Your task to perform on an android device: Open Youtube and go to "Your channel" Image 0: 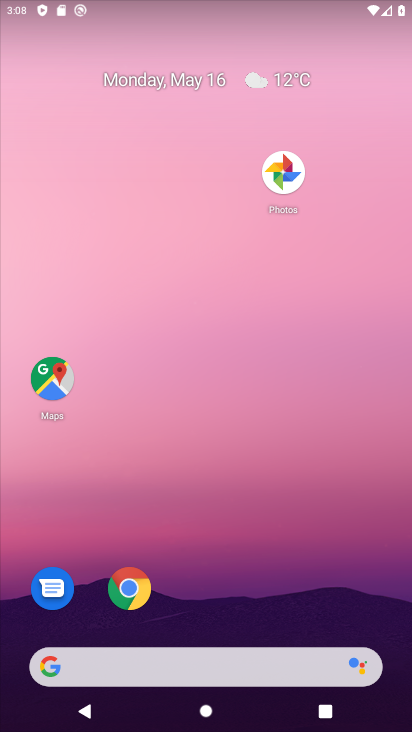
Step 0: drag from (218, 627) to (187, 100)
Your task to perform on an android device: Open Youtube and go to "Your channel" Image 1: 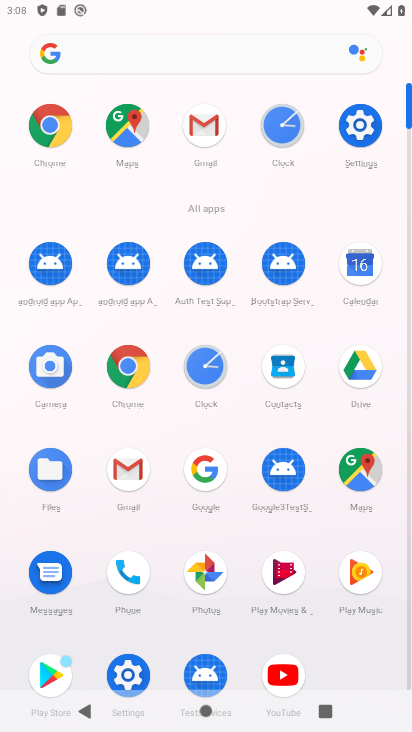
Step 1: click (291, 668)
Your task to perform on an android device: Open Youtube and go to "Your channel" Image 2: 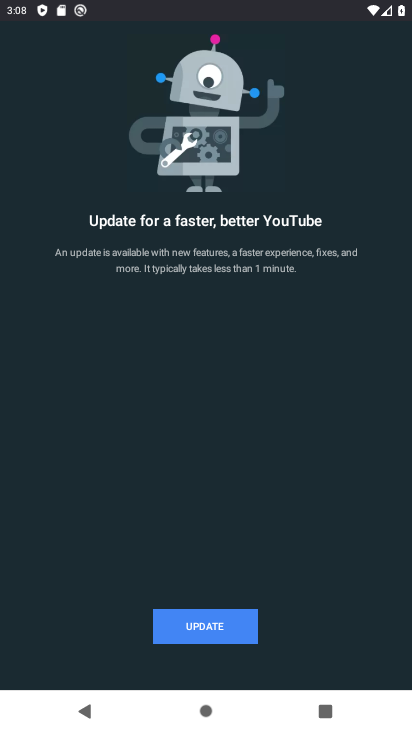
Step 2: click (188, 614)
Your task to perform on an android device: Open Youtube and go to "Your channel" Image 3: 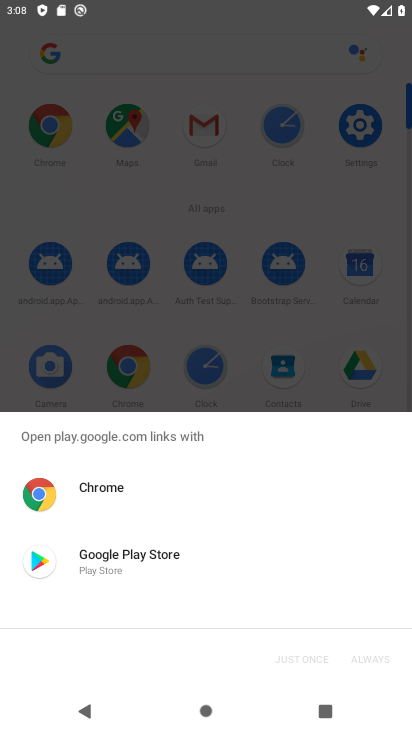
Step 3: click (92, 551)
Your task to perform on an android device: Open Youtube and go to "Your channel" Image 4: 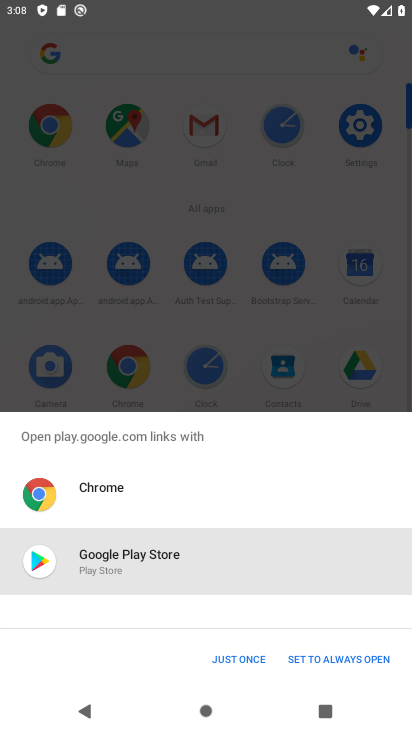
Step 4: click (248, 657)
Your task to perform on an android device: Open Youtube and go to "Your channel" Image 5: 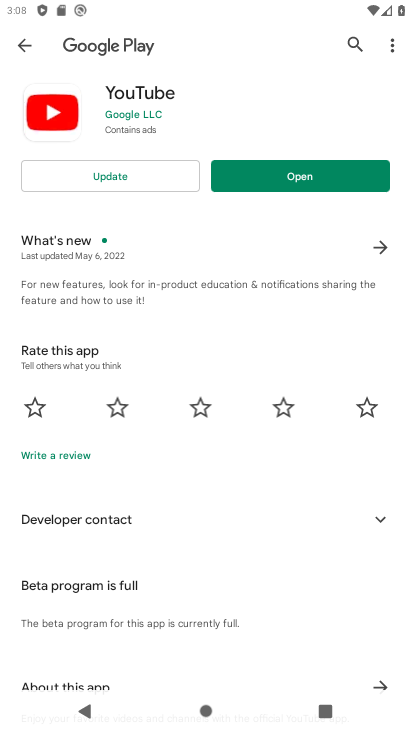
Step 5: click (274, 183)
Your task to perform on an android device: Open Youtube and go to "Your channel" Image 6: 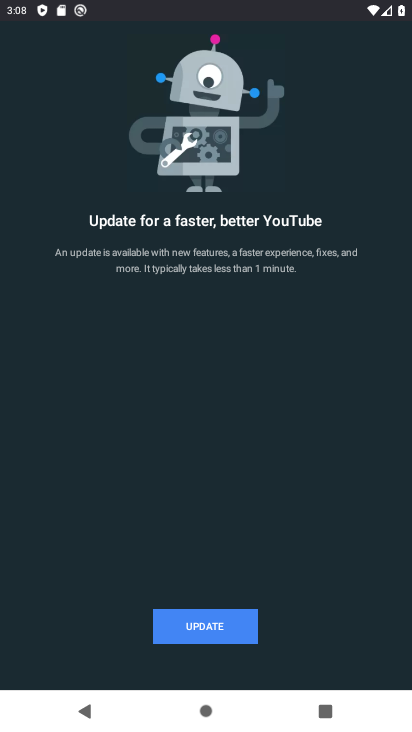
Step 6: click (229, 636)
Your task to perform on an android device: Open Youtube and go to "Your channel" Image 7: 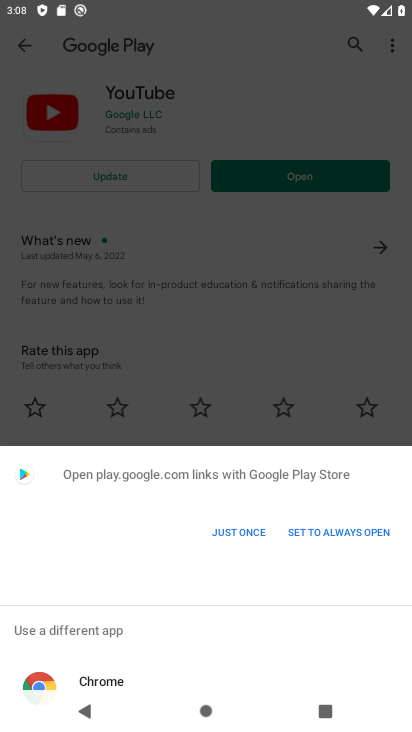
Step 7: click (235, 525)
Your task to perform on an android device: Open Youtube and go to "Your channel" Image 8: 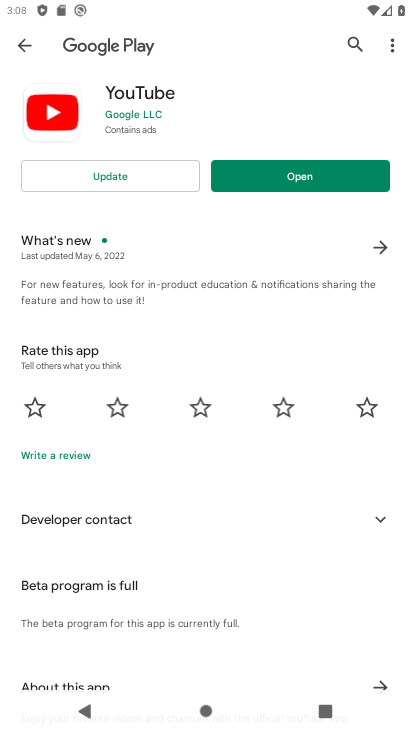
Step 8: click (276, 175)
Your task to perform on an android device: Open Youtube and go to "Your channel" Image 9: 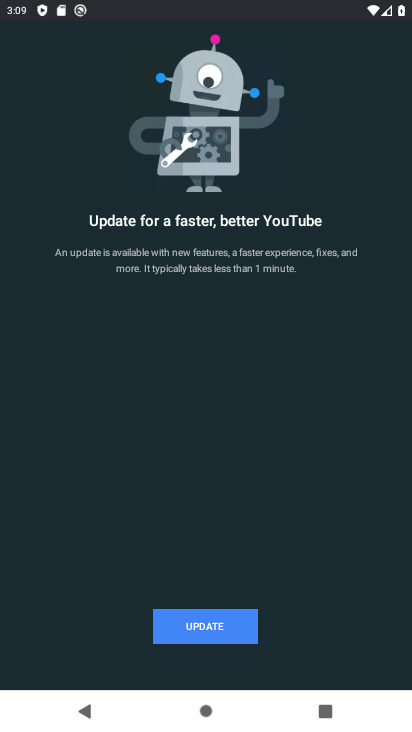
Step 9: click (202, 654)
Your task to perform on an android device: Open Youtube and go to "Your channel" Image 10: 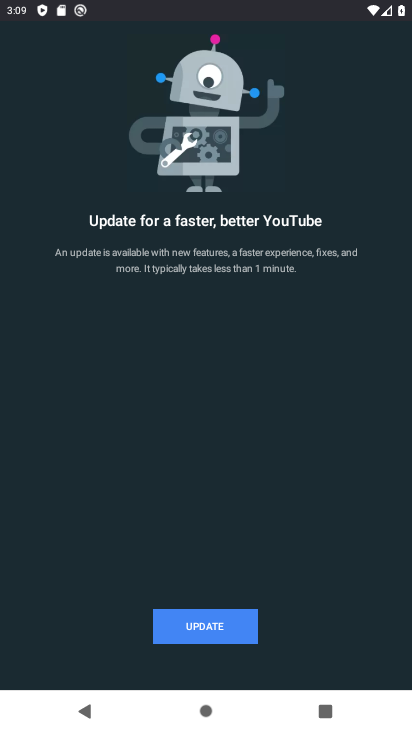
Step 10: click (197, 634)
Your task to perform on an android device: Open Youtube and go to "Your channel" Image 11: 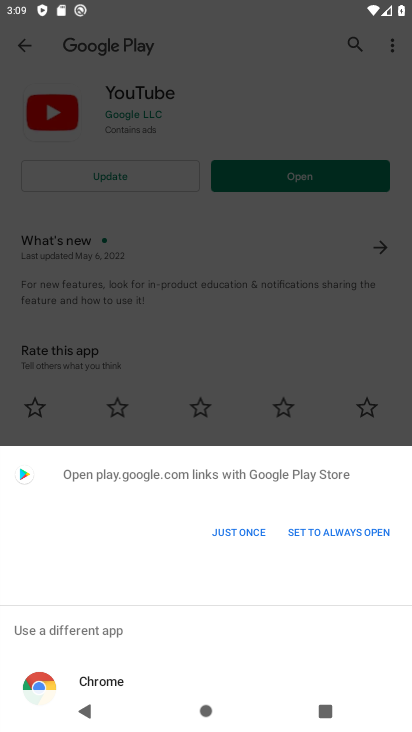
Step 11: click (245, 526)
Your task to perform on an android device: Open Youtube and go to "Your channel" Image 12: 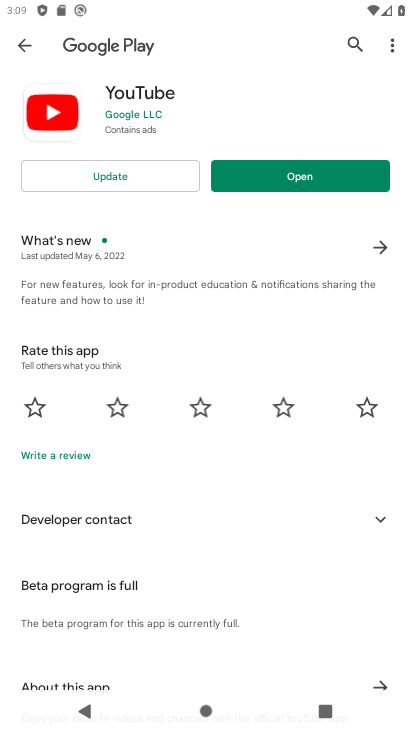
Step 12: click (101, 165)
Your task to perform on an android device: Open Youtube and go to "Your channel" Image 13: 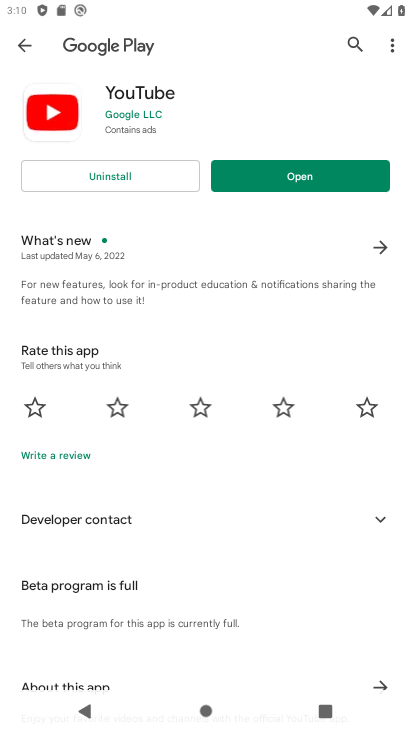
Step 13: click (323, 188)
Your task to perform on an android device: Open Youtube and go to "Your channel" Image 14: 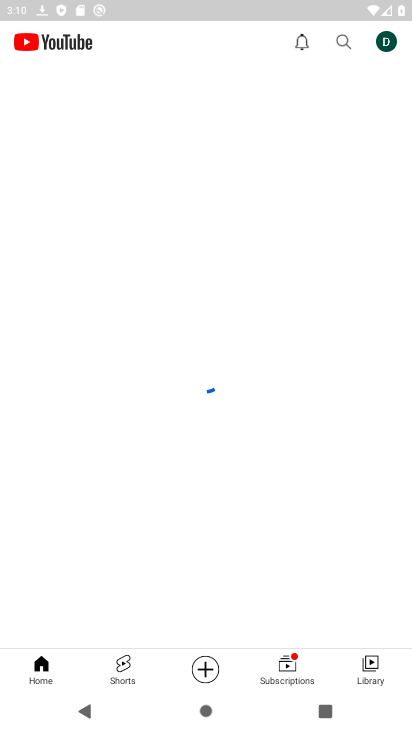
Step 14: click (351, 48)
Your task to perform on an android device: Open Youtube and go to "Your channel" Image 15: 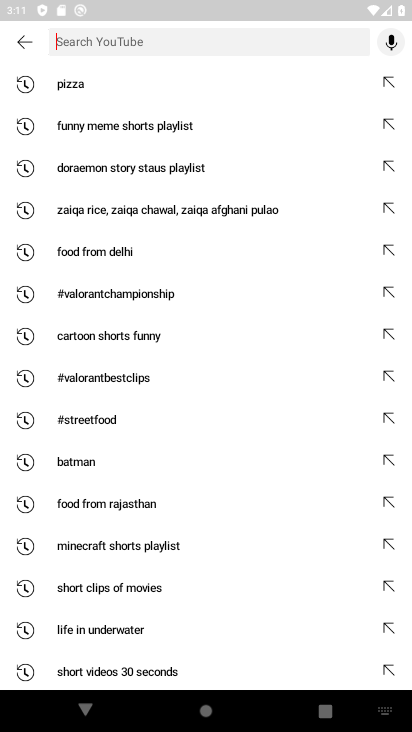
Step 15: type "your channel"
Your task to perform on an android device: Open Youtube and go to "Your channel" Image 16: 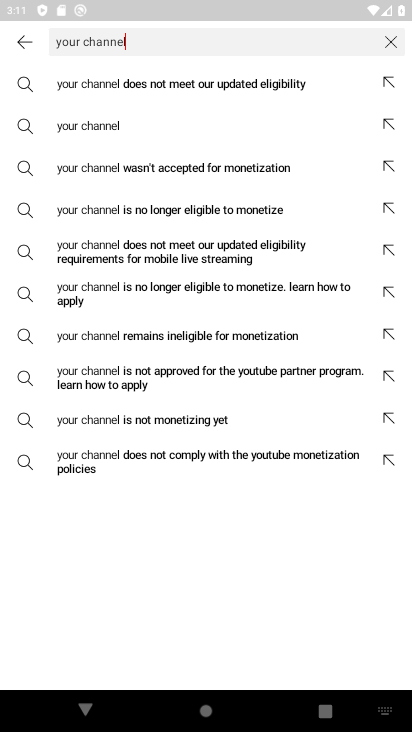
Step 16: click (83, 137)
Your task to perform on an android device: Open Youtube and go to "Your channel" Image 17: 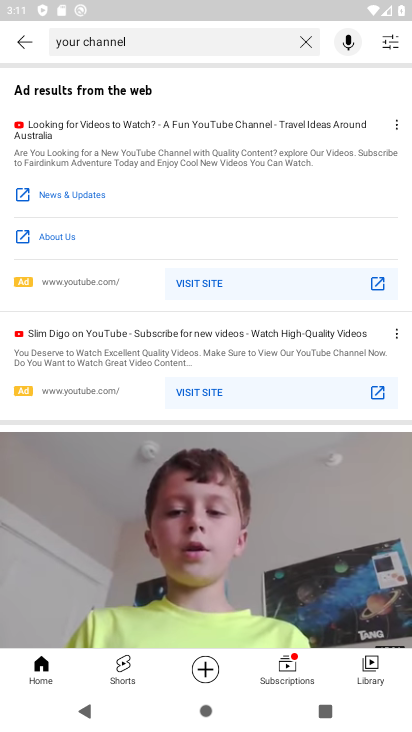
Step 17: task complete